Your task to perform on an android device: Add macbook air to the cart on newegg.com Image 0: 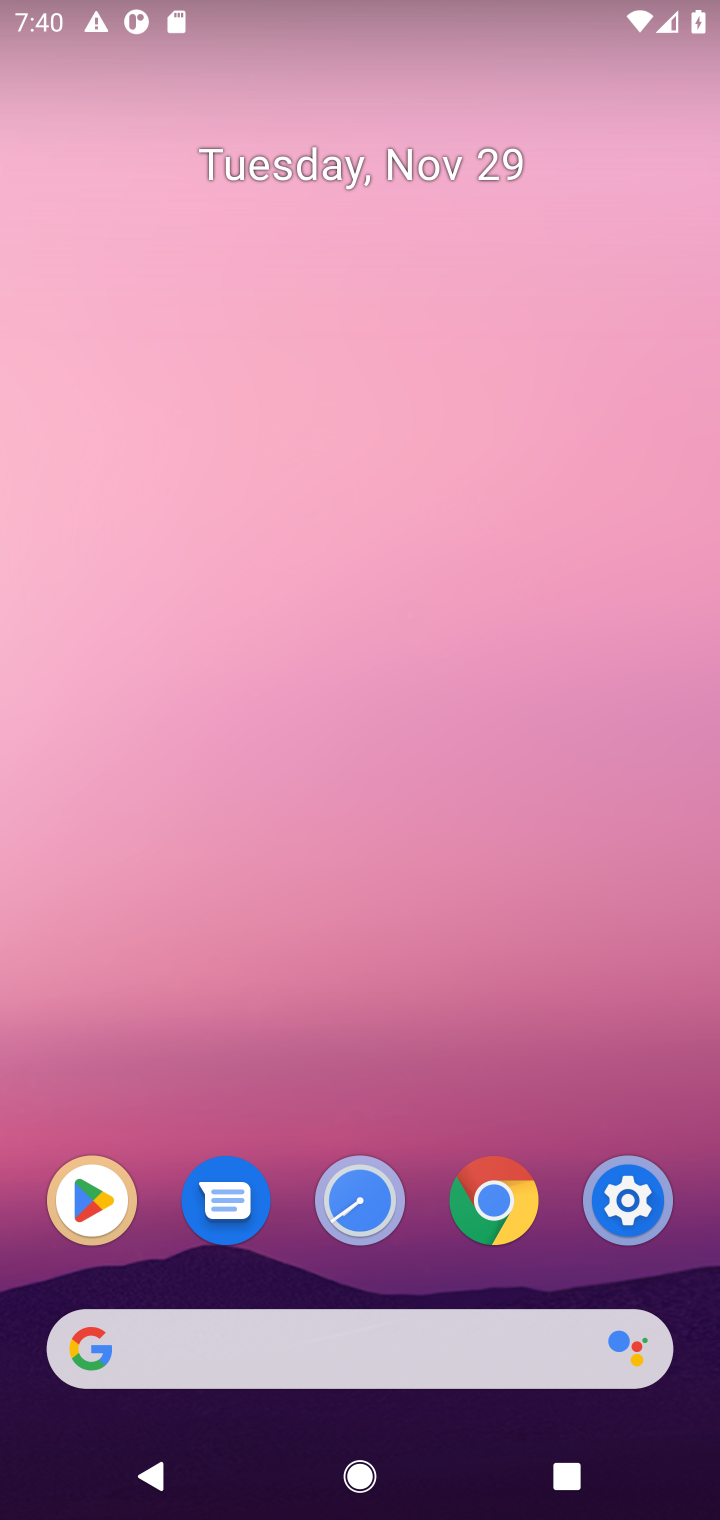
Step 0: click (455, 1337)
Your task to perform on an android device: Add macbook air to the cart on newegg.com Image 1: 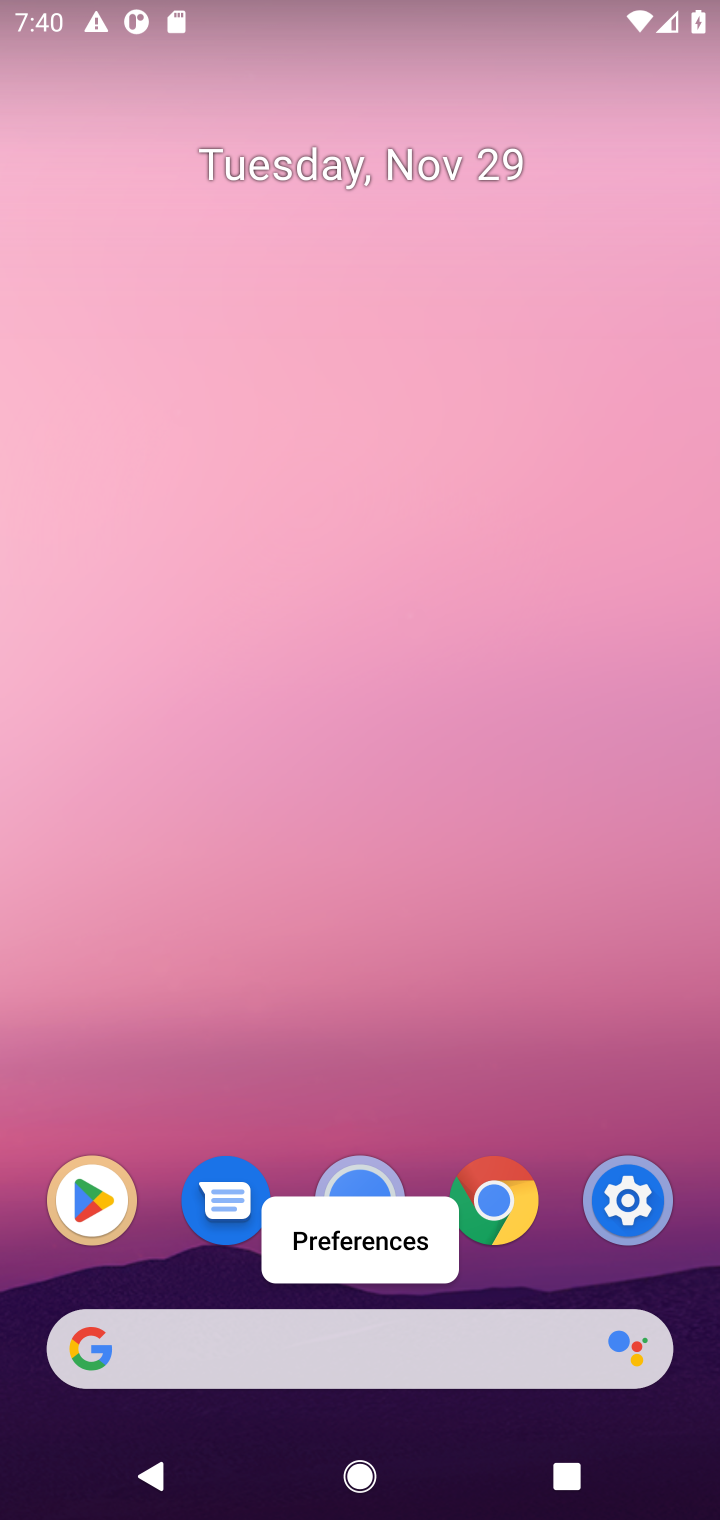
Step 1: type "newegg.com"
Your task to perform on an android device: Add macbook air to the cart on newegg.com Image 2: 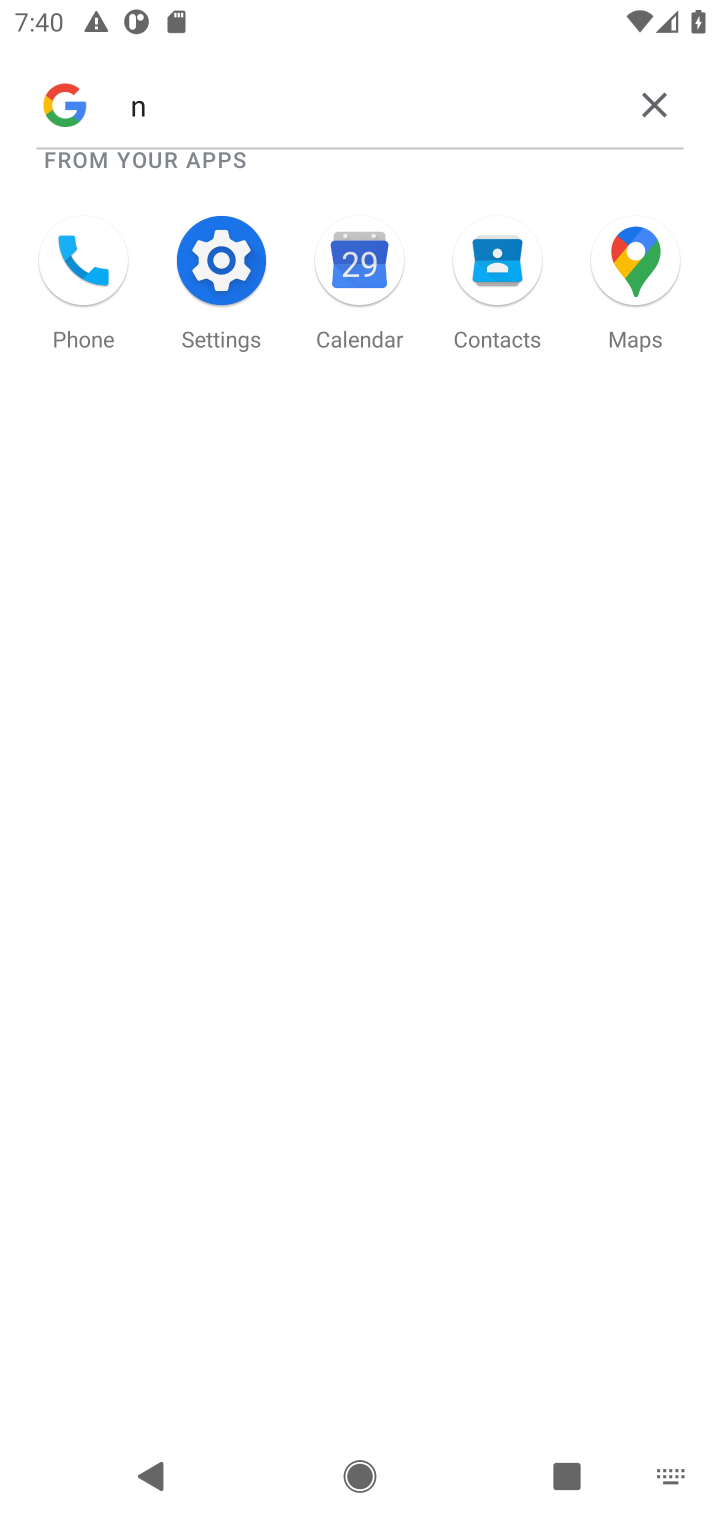
Step 2: click (639, 111)
Your task to perform on an android device: Add macbook air to the cart on newegg.com Image 3: 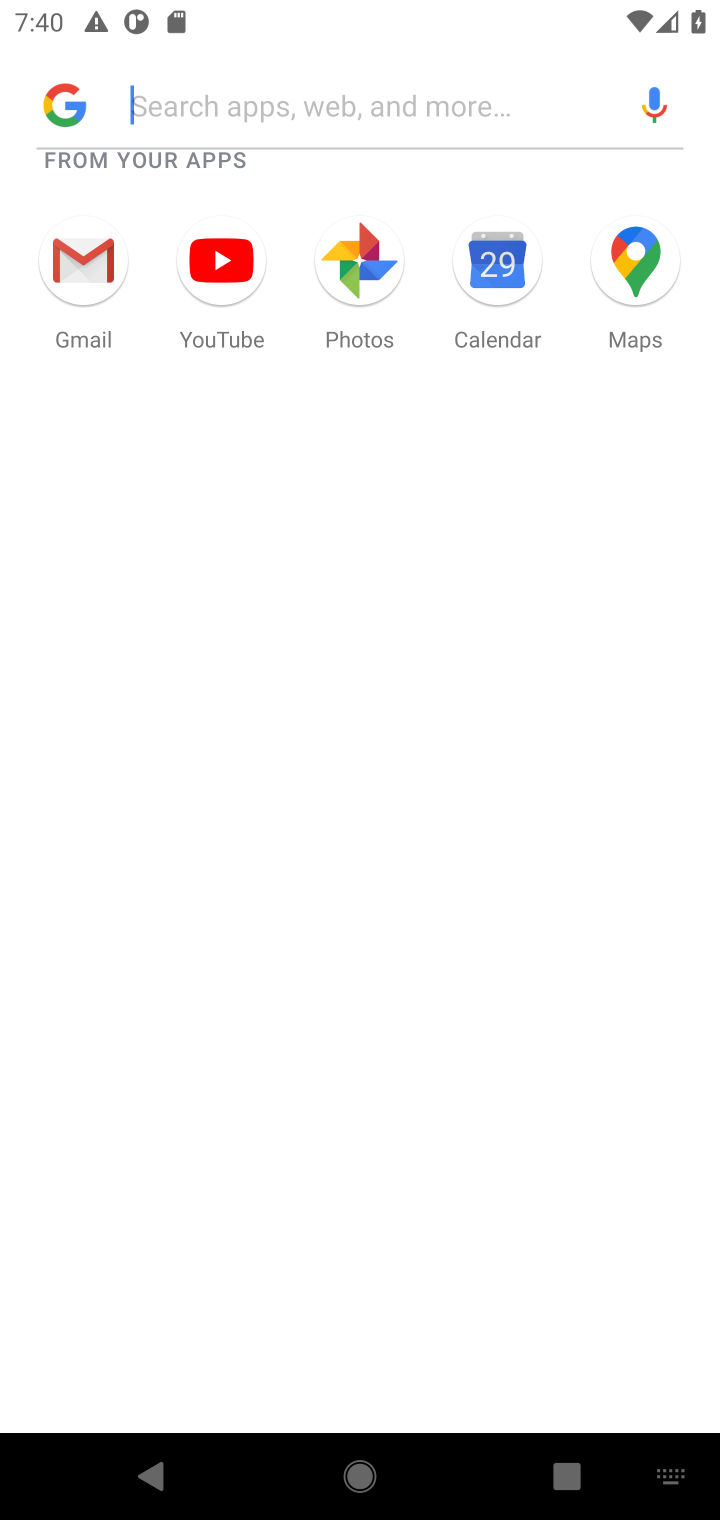
Step 3: type "newegg"
Your task to perform on an android device: Add macbook air to the cart on newegg.com Image 4: 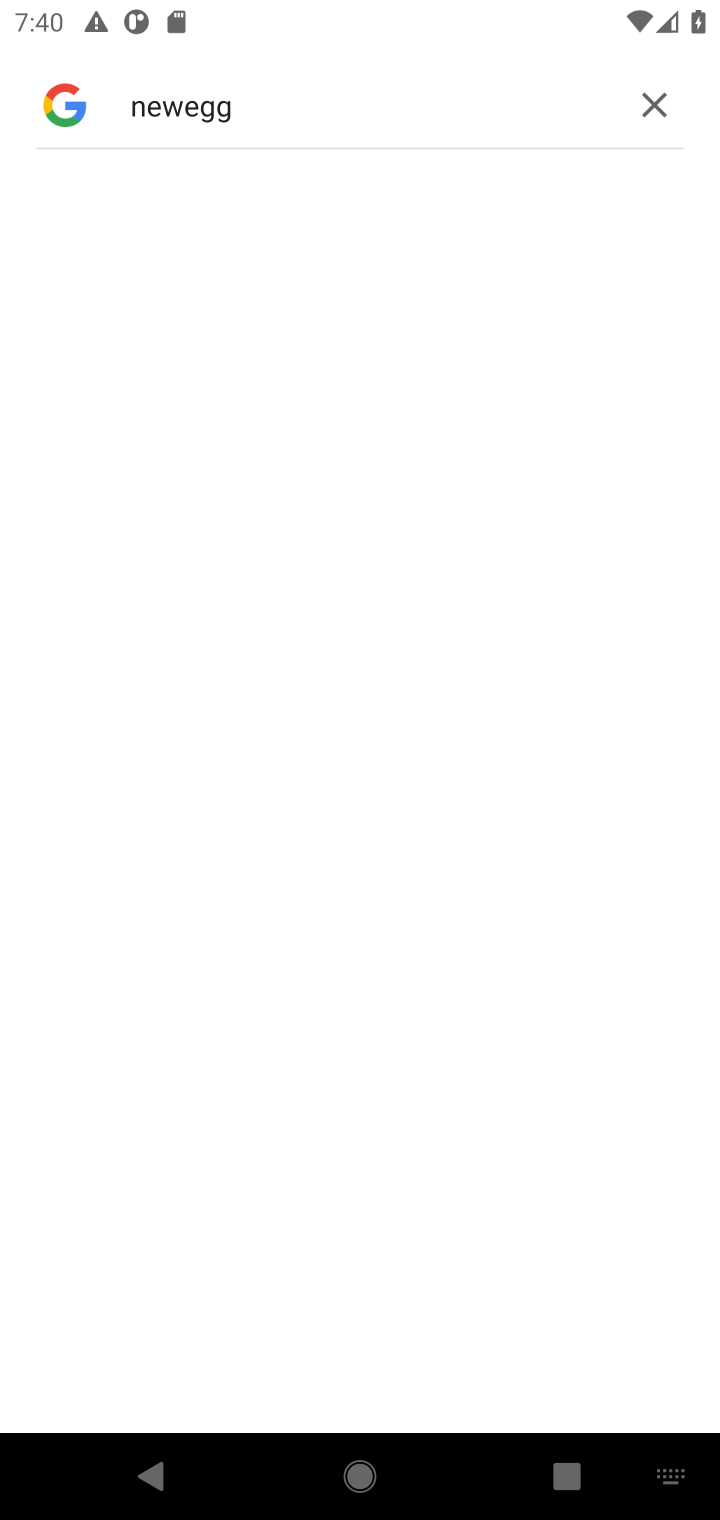
Step 4: task complete